Your task to perform on an android device: allow notifications from all sites in the chrome app Image 0: 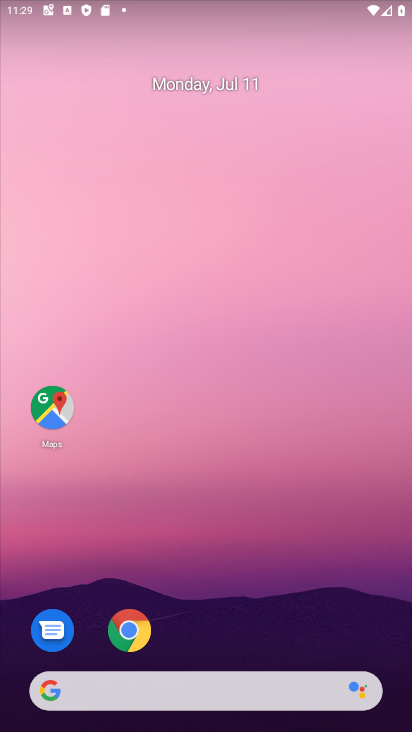
Step 0: click (129, 631)
Your task to perform on an android device: allow notifications from all sites in the chrome app Image 1: 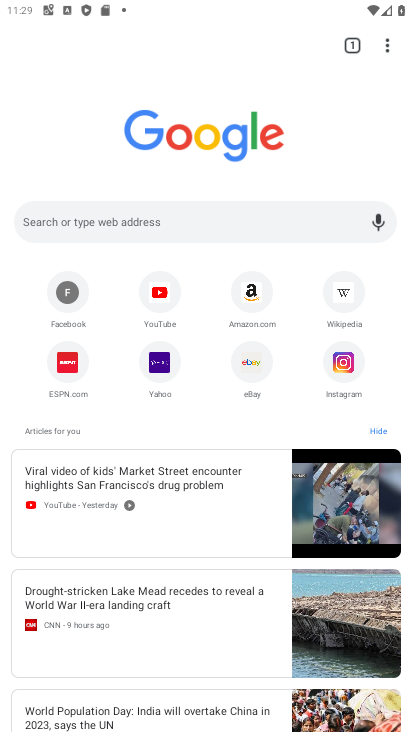
Step 1: click (384, 50)
Your task to perform on an android device: allow notifications from all sites in the chrome app Image 2: 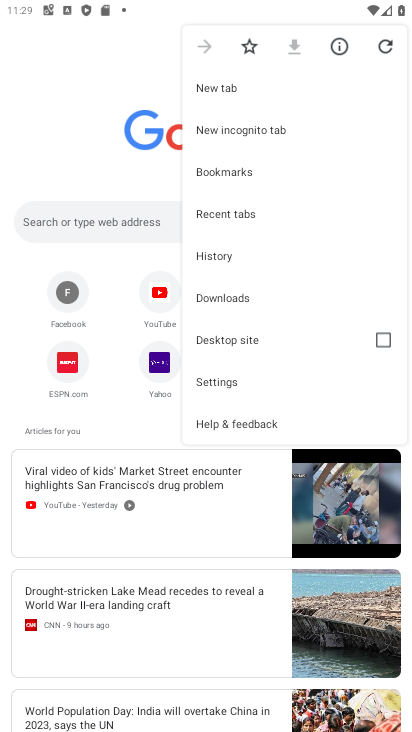
Step 2: click (224, 378)
Your task to perform on an android device: allow notifications from all sites in the chrome app Image 3: 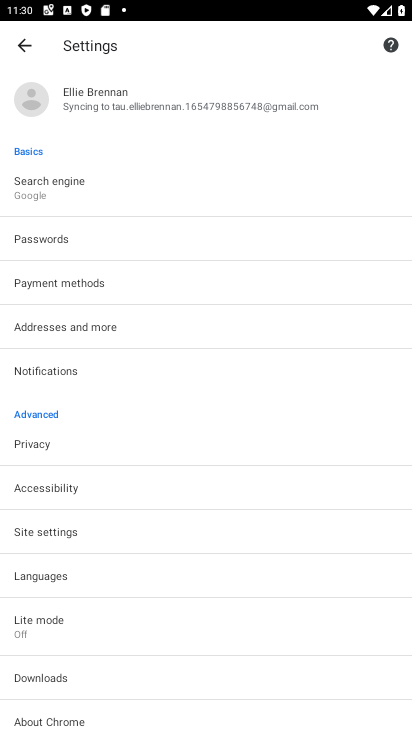
Step 3: click (50, 528)
Your task to perform on an android device: allow notifications from all sites in the chrome app Image 4: 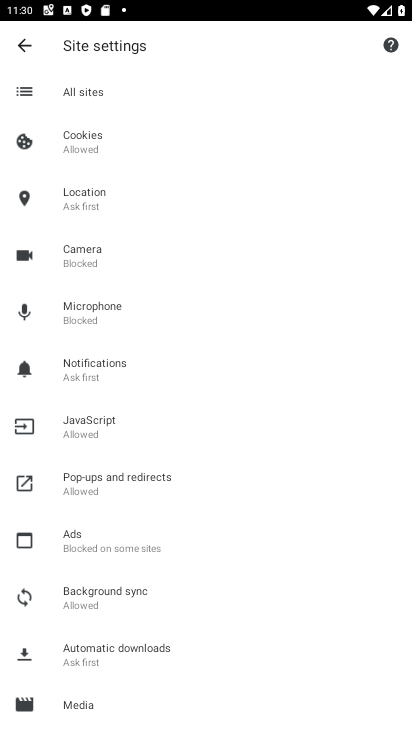
Step 4: click (86, 373)
Your task to perform on an android device: allow notifications from all sites in the chrome app Image 5: 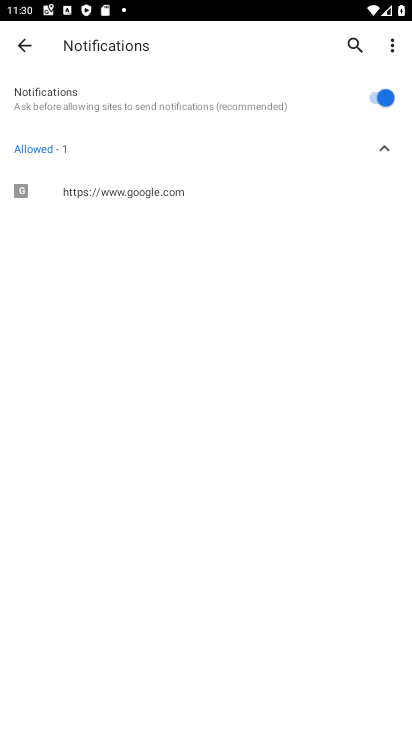
Step 5: task complete